Your task to perform on an android device: all mails in gmail Image 0: 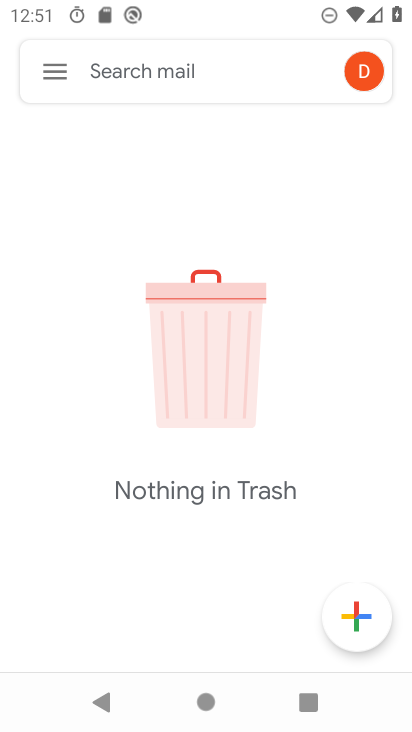
Step 0: click (65, 77)
Your task to perform on an android device: all mails in gmail Image 1: 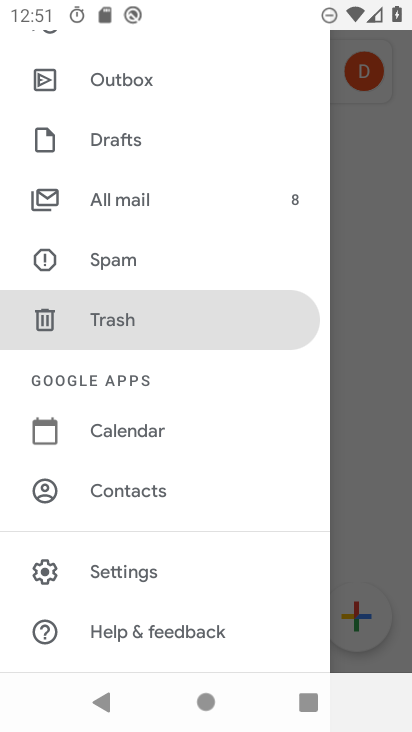
Step 1: click (130, 200)
Your task to perform on an android device: all mails in gmail Image 2: 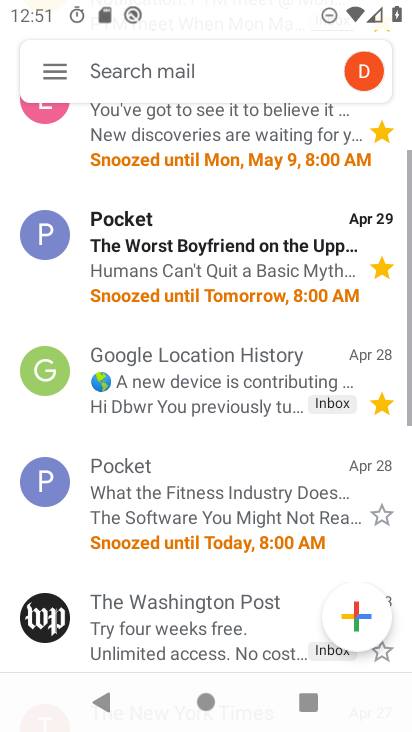
Step 2: task complete